Your task to perform on an android device: change the clock style Image 0: 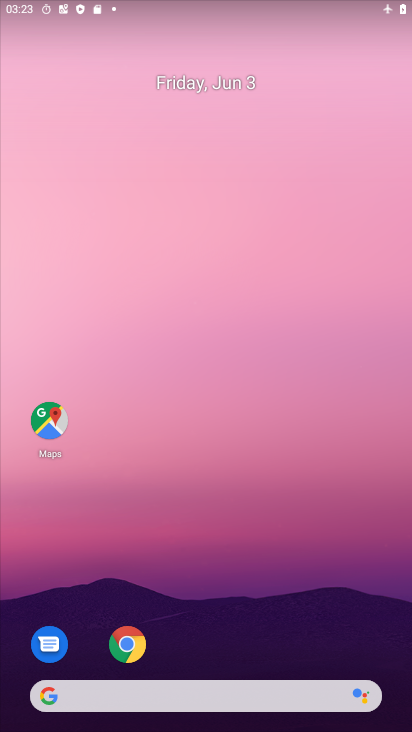
Step 0: drag from (217, 653) to (263, 183)
Your task to perform on an android device: change the clock style Image 1: 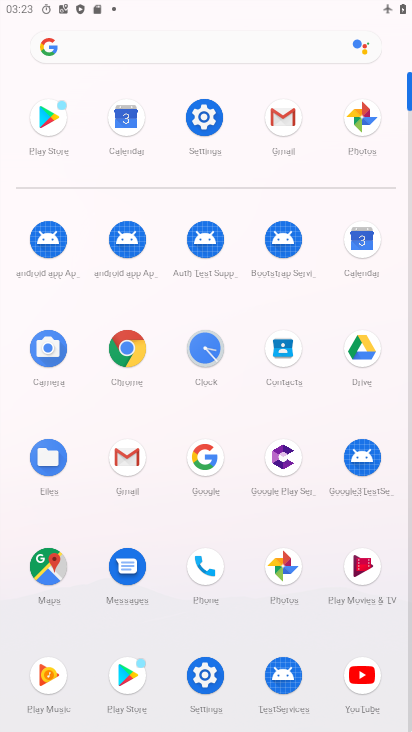
Step 1: click (209, 358)
Your task to perform on an android device: change the clock style Image 2: 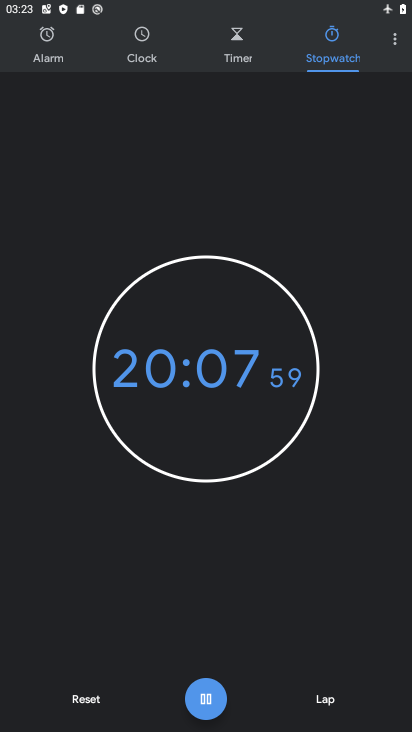
Step 2: click (393, 32)
Your task to perform on an android device: change the clock style Image 3: 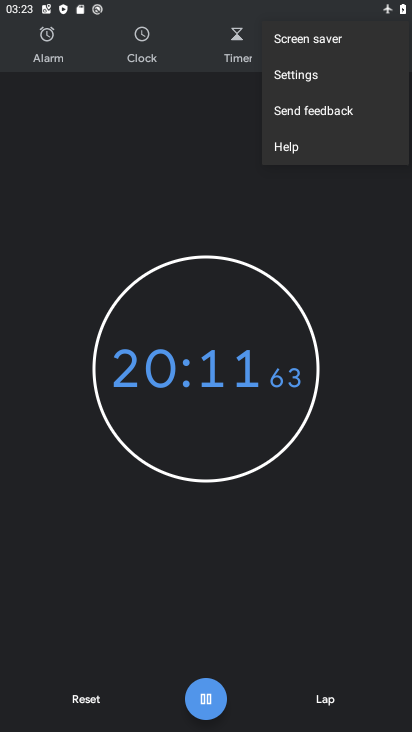
Step 3: click (306, 78)
Your task to perform on an android device: change the clock style Image 4: 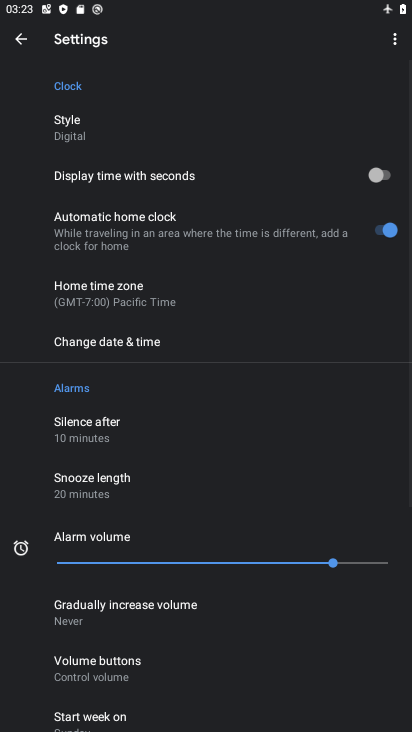
Step 4: click (116, 141)
Your task to perform on an android device: change the clock style Image 5: 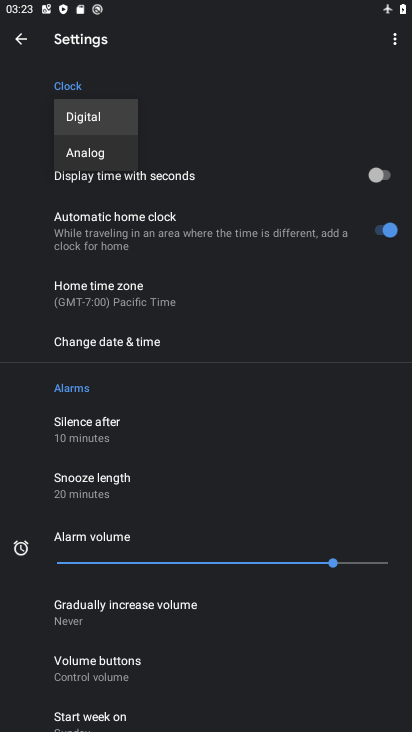
Step 5: click (108, 156)
Your task to perform on an android device: change the clock style Image 6: 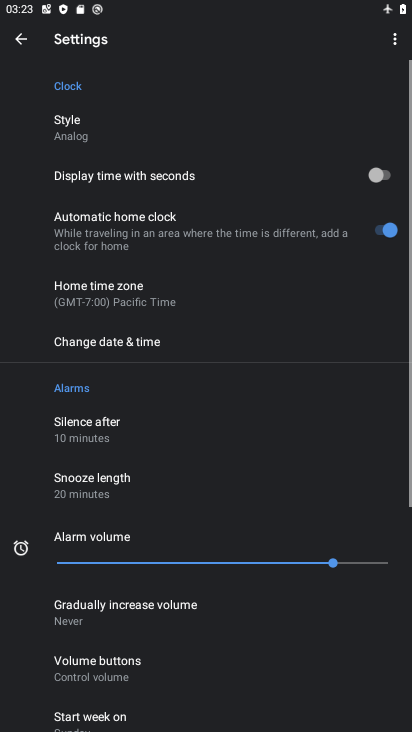
Step 6: task complete